Your task to perform on an android device: check out phone information Image 0: 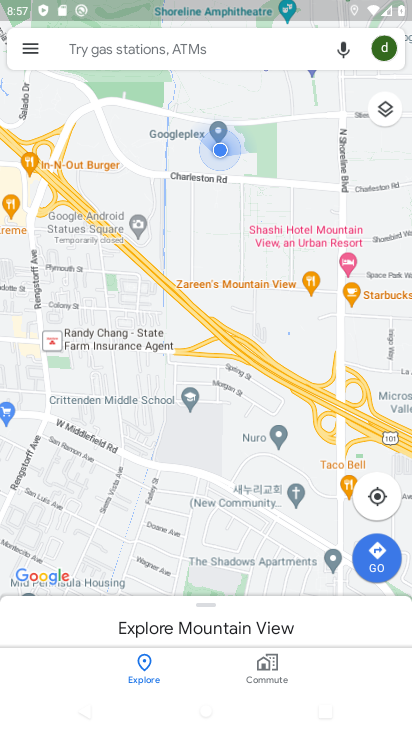
Step 0: press home button
Your task to perform on an android device: check out phone information Image 1: 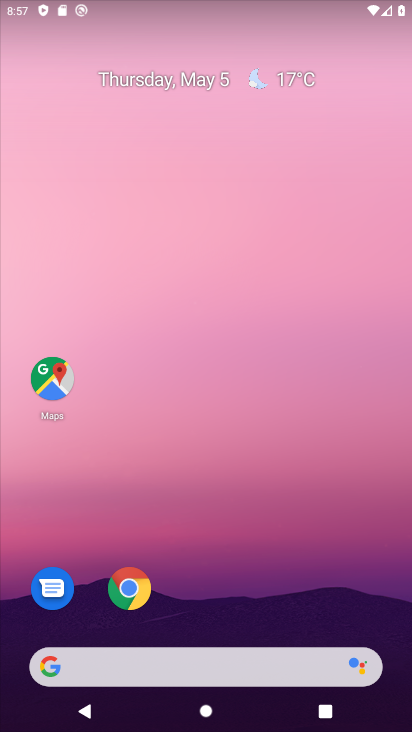
Step 1: drag from (243, 596) to (325, 80)
Your task to perform on an android device: check out phone information Image 2: 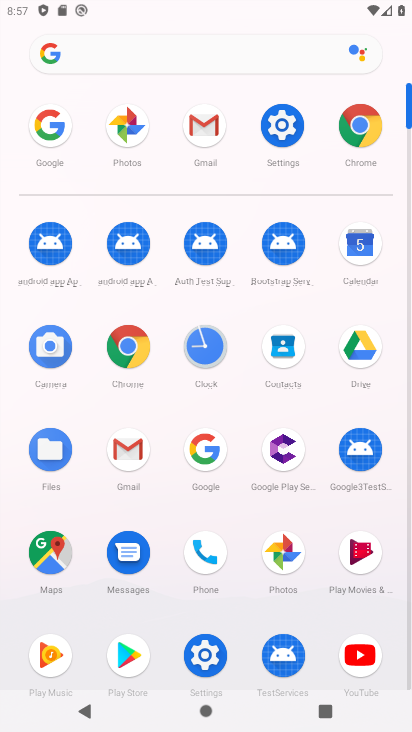
Step 2: click (204, 661)
Your task to perform on an android device: check out phone information Image 3: 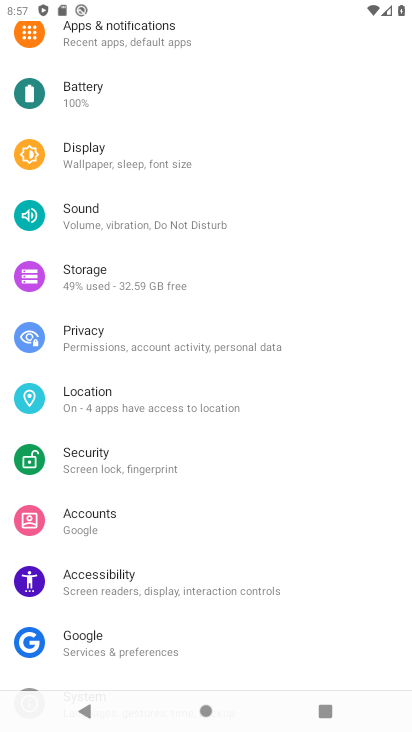
Step 3: drag from (175, 655) to (258, 227)
Your task to perform on an android device: check out phone information Image 4: 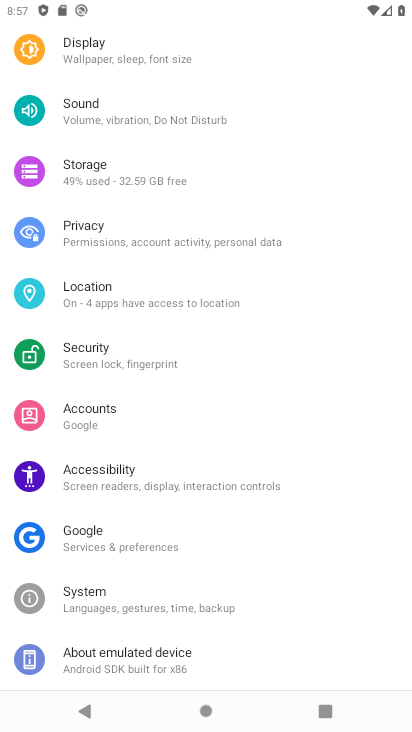
Step 4: click (122, 659)
Your task to perform on an android device: check out phone information Image 5: 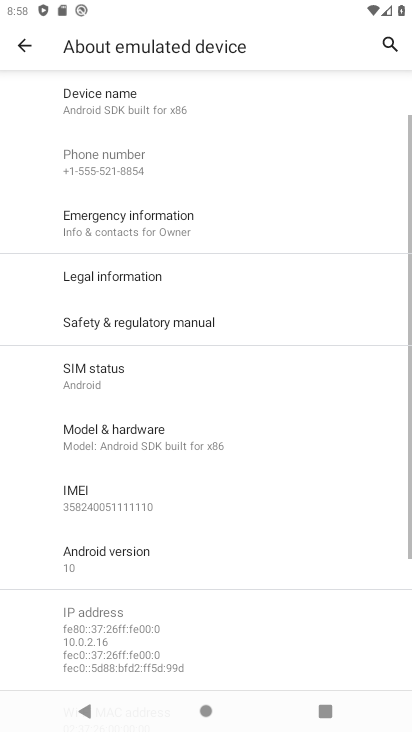
Step 5: task complete